Your task to perform on an android device: Open maps Image 0: 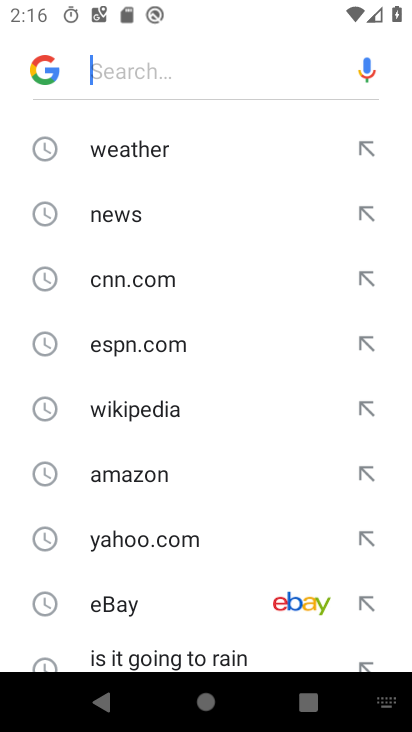
Step 0: press home button
Your task to perform on an android device: Open maps Image 1: 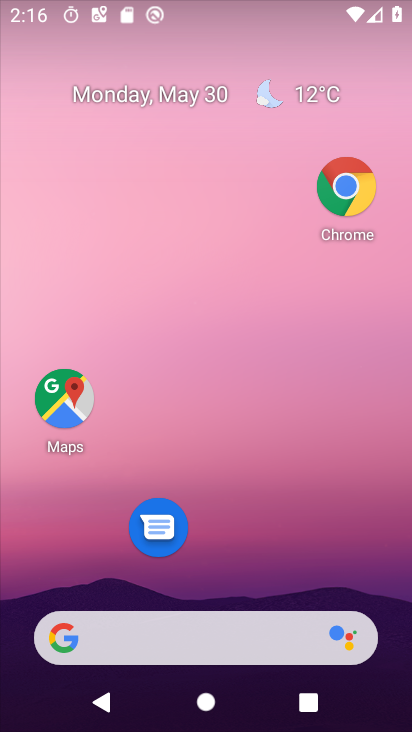
Step 1: drag from (238, 594) to (305, 62)
Your task to perform on an android device: Open maps Image 2: 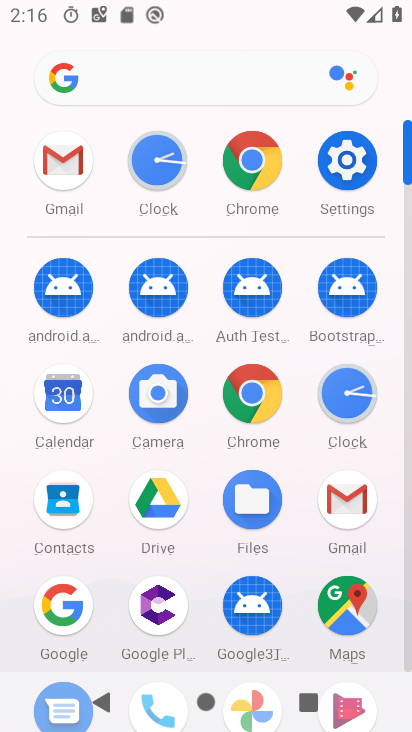
Step 2: click (345, 596)
Your task to perform on an android device: Open maps Image 3: 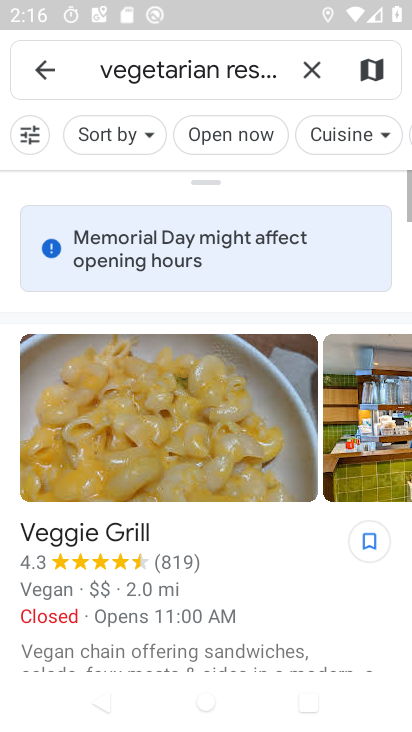
Step 3: task complete